Your task to perform on an android device: check google app version Image 0: 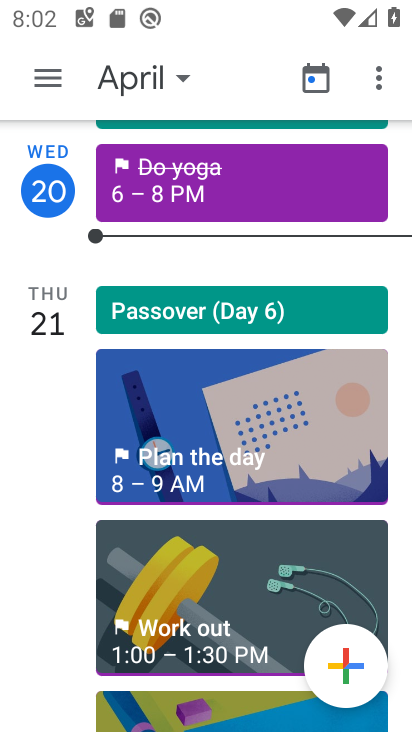
Step 0: press home button
Your task to perform on an android device: check google app version Image 1: 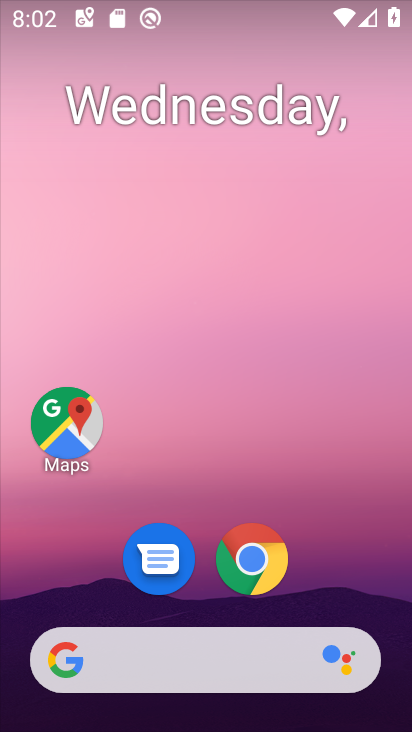
Step 1: drag from (350, 495) to (350, 176)
Your task to perform on an android device: check google app version Image 2: 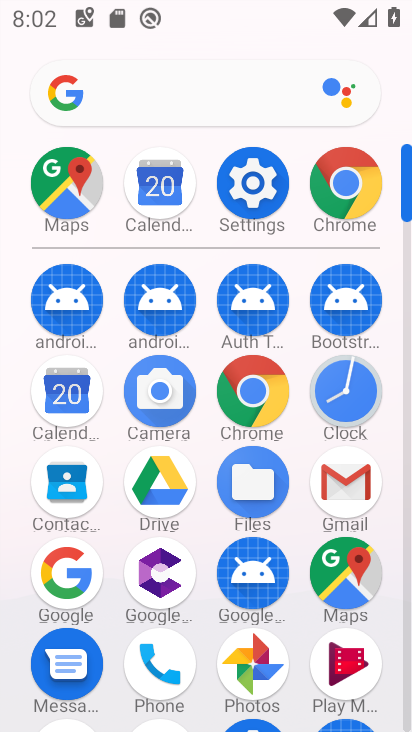
Step 2: click (60, 592)
Your task to perform on an android device: check google app version Image 3: 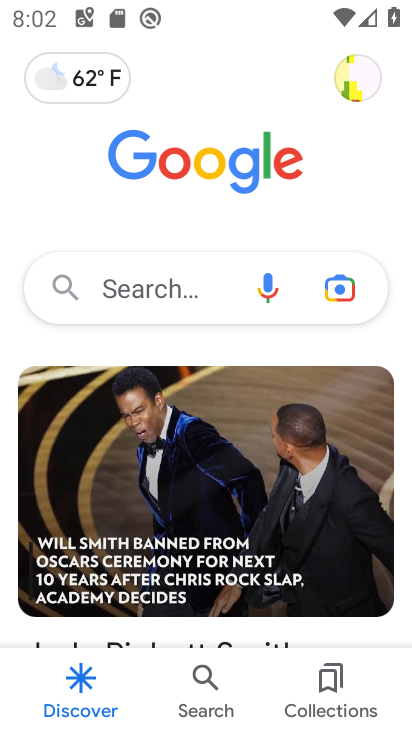
Step 3: click (346, 80)
Your task to perform on an android device: check google app version Image 4: 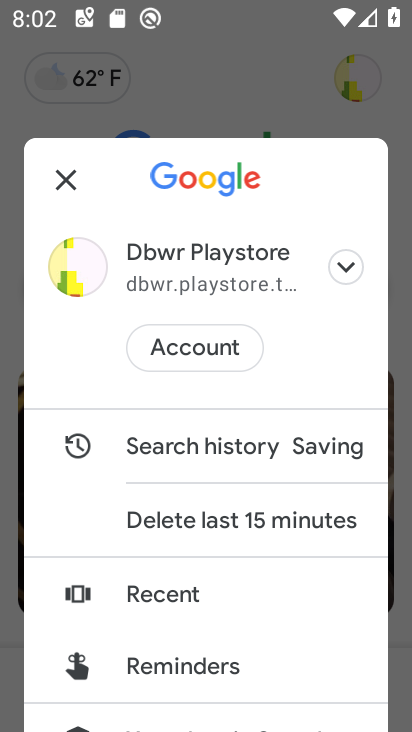
Step 4: drag from (259, 562) to (268, 197)
Your task to perform on an android device: check google app version Image 5: 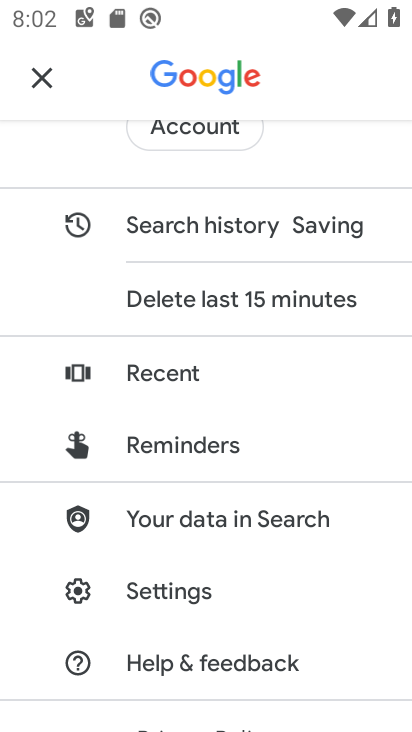
Step 5: click (173, 580)
Your task to perform on an android device: check google app version Image 6: 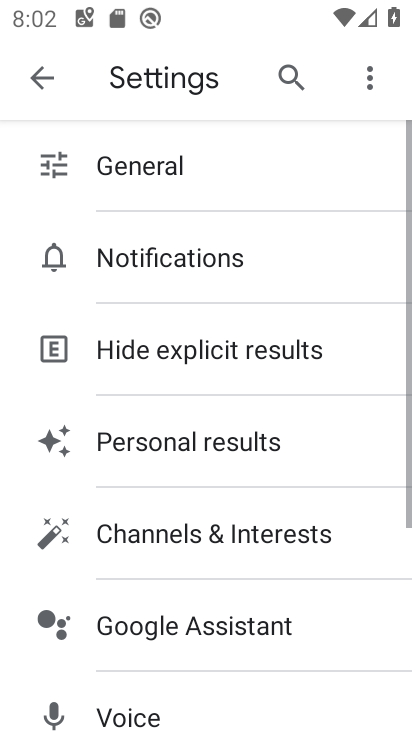
Step 6: drag from (332, 623) to (345, 108)
Your task to perform on an android device: check google app version Image 7: 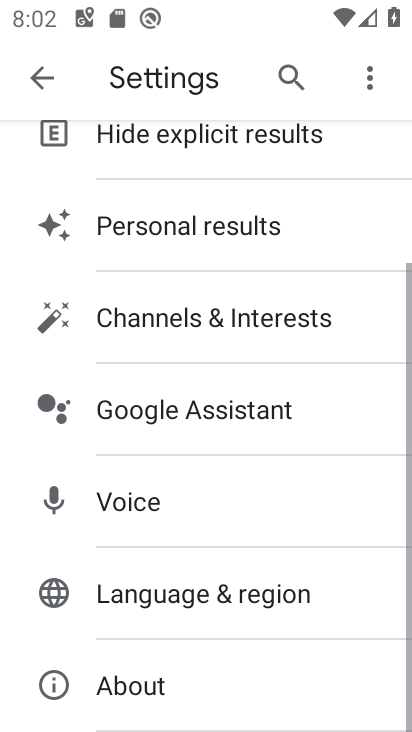
Step 7: click (173, 696)
Your task to perform on an android device: check google app version Image 8: 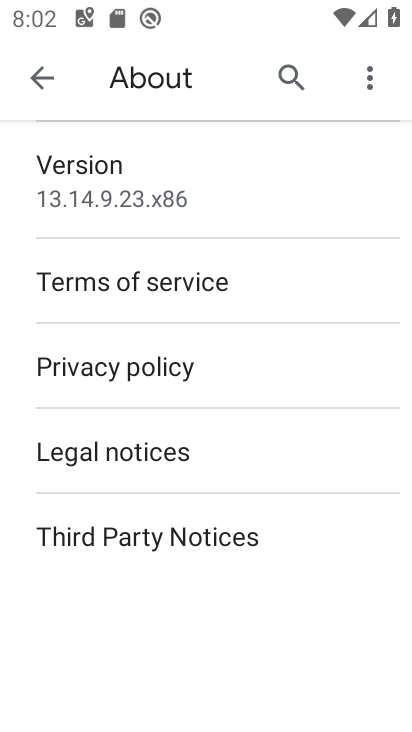
Step 8: click (127, 177)
Your task to perform on an android device: check google app version Image 9: 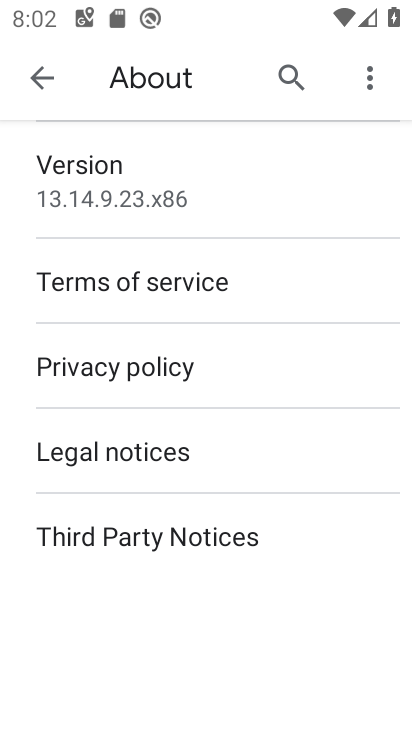
Step 9: task complete